Your task to perform on an android device: Open Amazon Image 0: 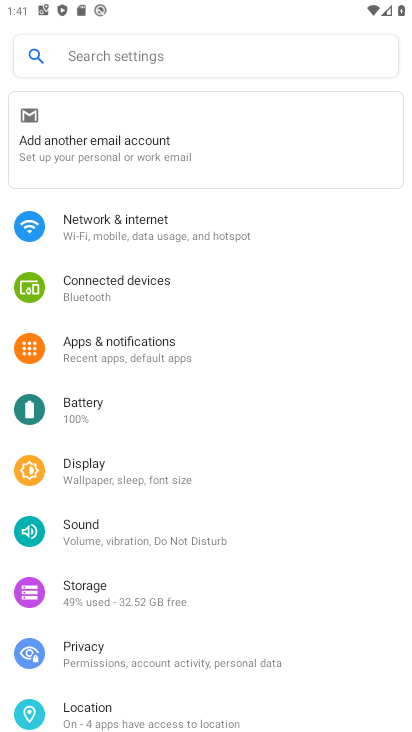
Step 0: press home button
Your task to perform on an android device: Open Amazon Image 1: 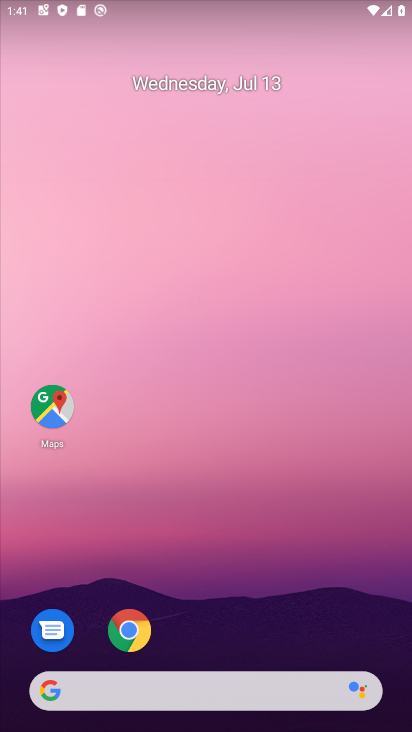
Step 1: drag from (343, 603) to (373, 106)
Your task to perform on an android device: Open Amazon Image 2: 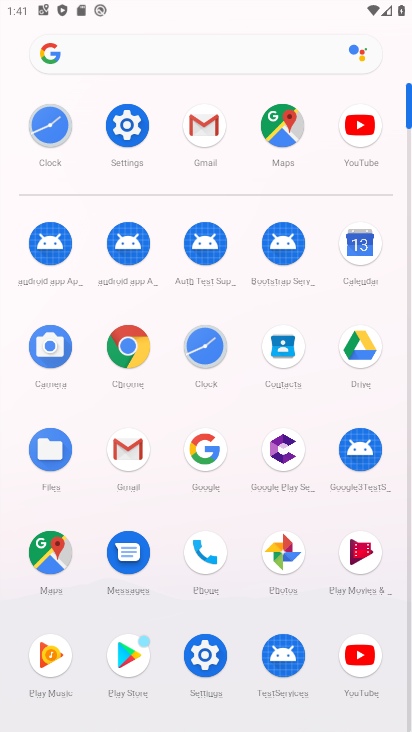
Step 2: click (131, 358)
Your task to perform on an android device: Open Amazon Image 3: 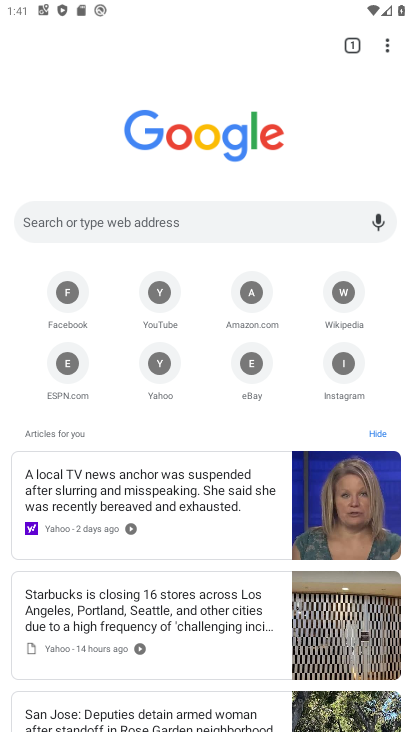
Step 3: click (289, 217)
Your task to perform on an android device: Open Amazon Image 4: 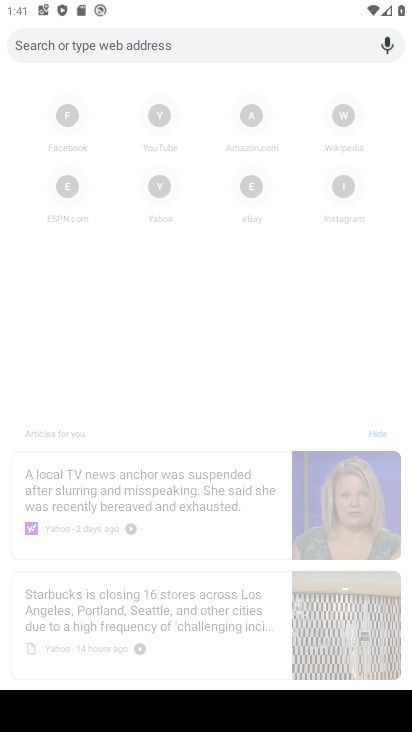
Step 4: type "amazon"
Your task to perform on an android device: Open Amazon Image 5: 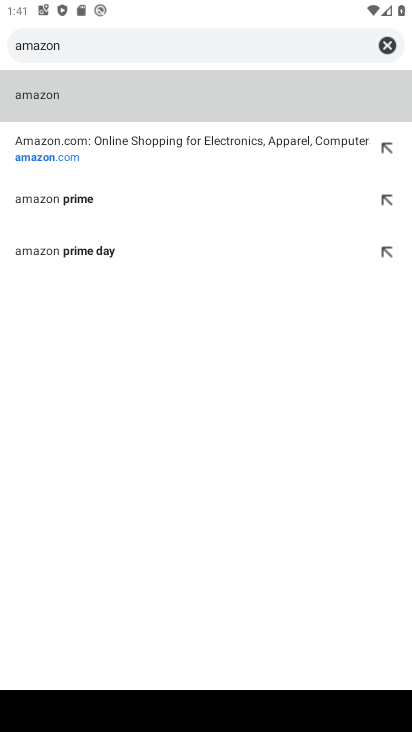
Step 5: click (167, 94)
Your task to perform on an android device: Open Amazon Image 6: 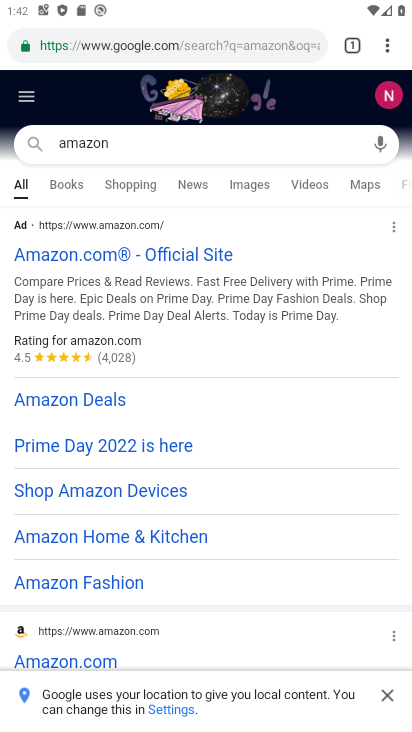
Step 6: task complete